Your task to perform on an android device: Go to eBay Image 0: 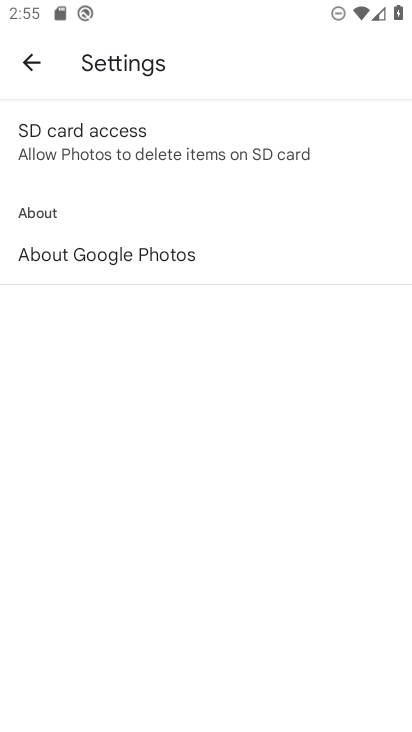
Step 0: press home button
Your task to perform on an android device: Go to eBay Image 1: 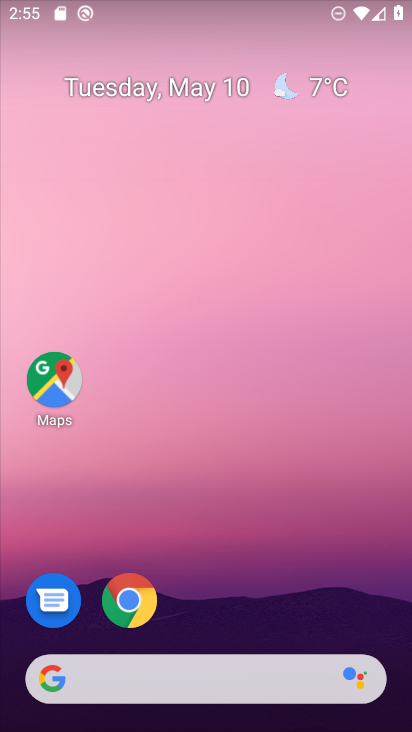
Step 1: click (140, 603)
Your task to perform on an android device: Go to eBay Image 2: 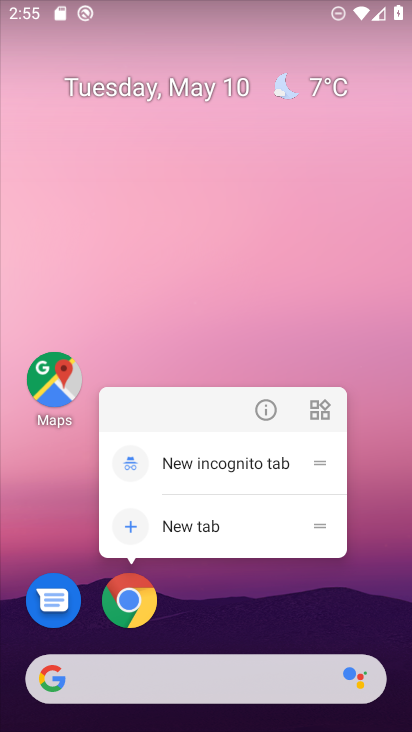
Step 2: click (121, 643)
Your task to perform on an android device: Go to eBay Image 3: 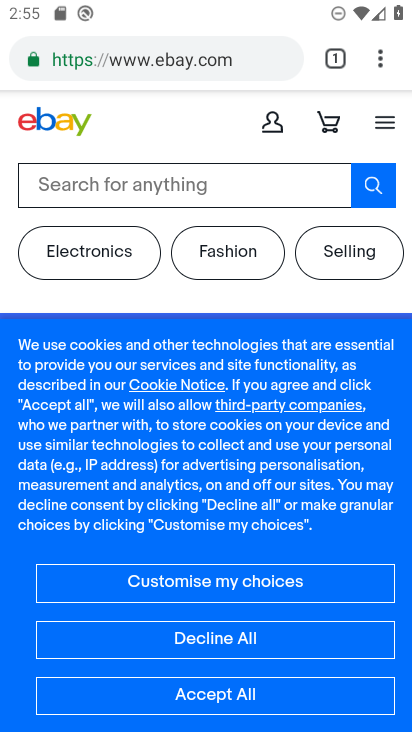
Step 3: task complete